Your task to perform on an android device: View the shopping cart on target.com. Search for "macbook pro" on target.com, select the first entry, and add it to the cart. Image 0: 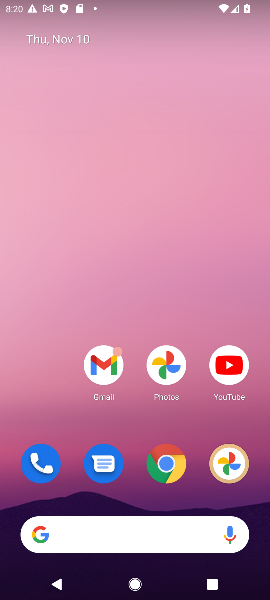
Step 0: click (168, 463)
Your task to perform on an android device: View the shopping cart on target.com. Search for "macbook pro" on target.com, select the first entry, and add it to the cart. Image 1: 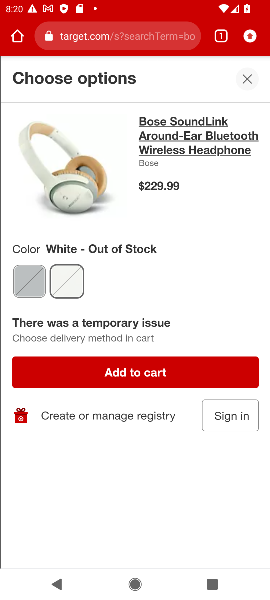
Step 1: click (248, 73)
Your task to perform on an android device: View the shopping cart on target.com. Search for "macbook pro" on target.com, select the first entry, and add it to the cart. Image 2: 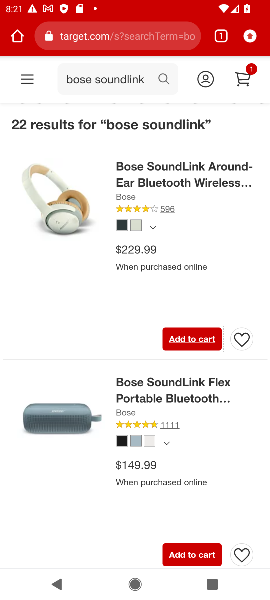
Step 2: click (162, 75)
Your task to perform on an android device: View the shopping cart on target.com. Search for "macbook pro" on target.com, select the first entry, and add it to the cart. Image 3: 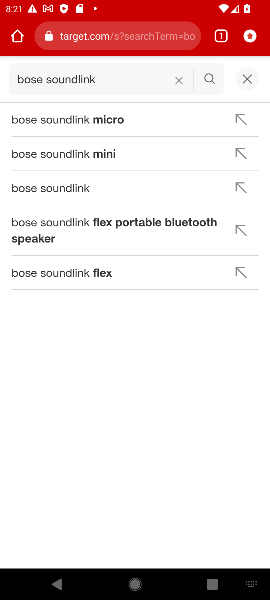
Step 3: click (178, 78)
Your task to perform on an android device: View the shopping cart on target.com. Search for "macbook pro" on target.com, select the first entry, and add it to the cart. Image 4: 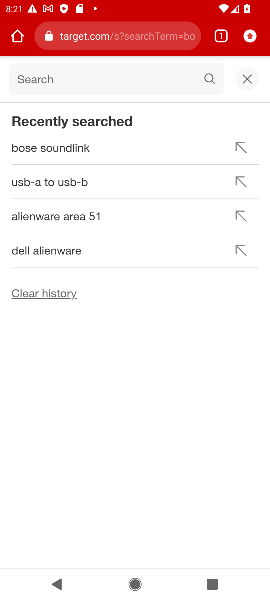
Step 4: click (88, 71)
Your task to perform on an android device: View the shopping cart on target.com. Search for "macbook pro" on target.com, select the first entry, and add it to the cart. Image 5: 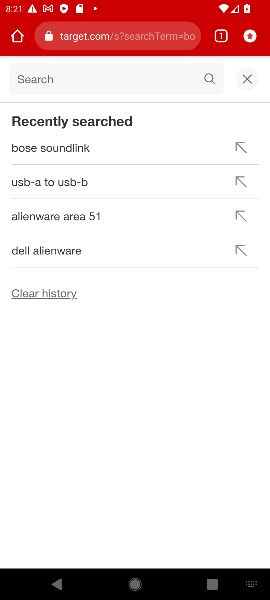
Step 5: type "macbook pro"
Your task to perform on an android device: View the shopping cart on target.com. Search for "macbook pro" on target.com, select the first entry, and add it to the cart. Image 6: 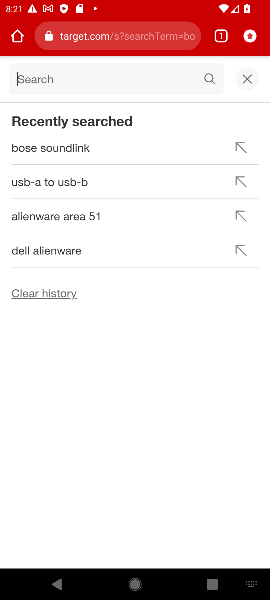
Step 6: press enter
Your task to perform on an android device: View the shopping cart on target.com. Search for "macbook pro" on target.com, select the first entry, and add it to the cart. Image 7: 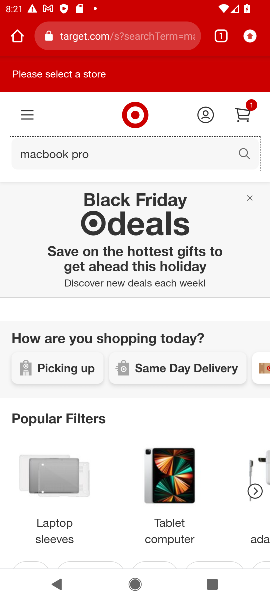
Step 7: task complete